Your task to perform on an android device: Go to ESPN.com Image 0: 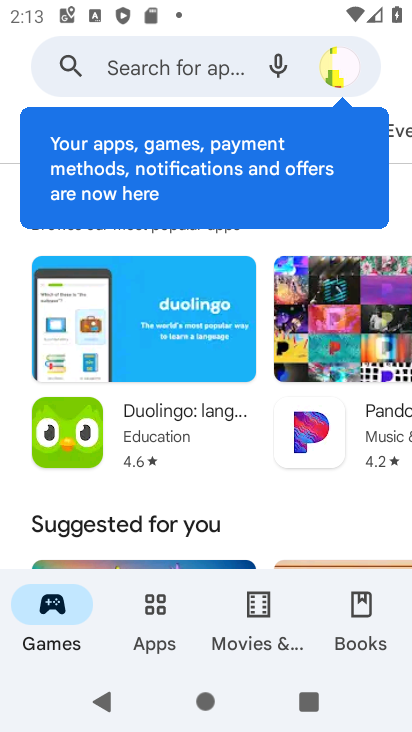
Step 0: press home button
Your task to perform on an android device: Go to ESPN.com Image 1: 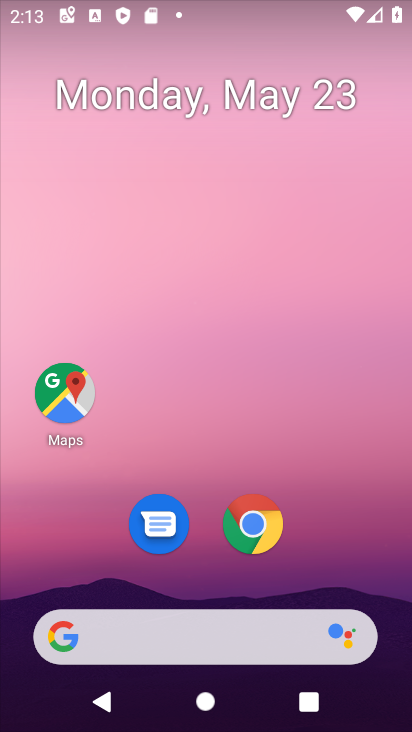
Step 1: click (196, 650)
Your task to perform on an android device: Go to ESPN.com Image 2: 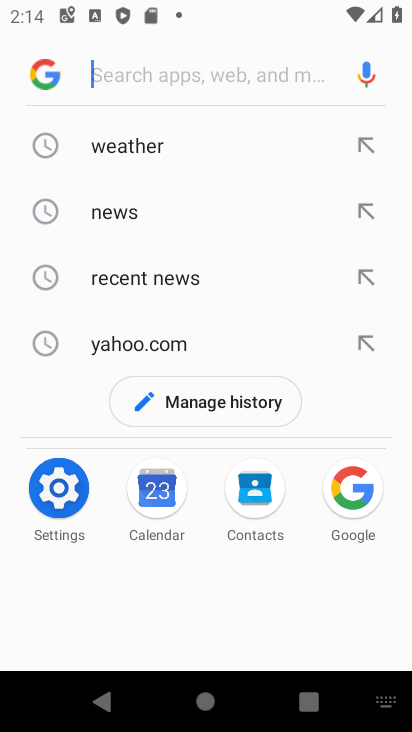
Step 2: type "espn.com"
Your task to perform on an android device: Go to ESPN.com Image 3: 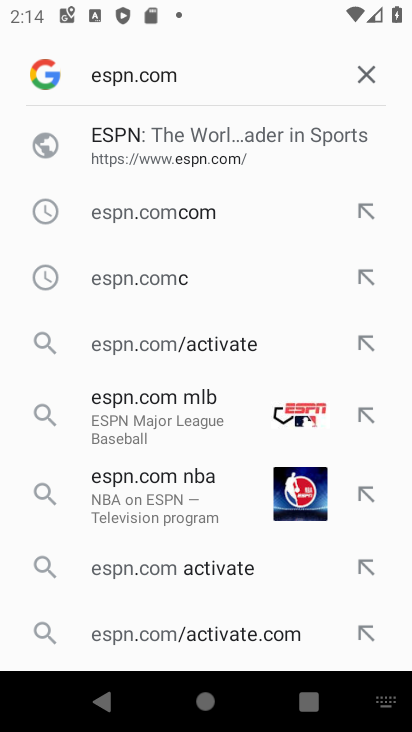
Step 3: click (131, 142)
Your task to perform on an android device: Go to ESPN.com Image 4: 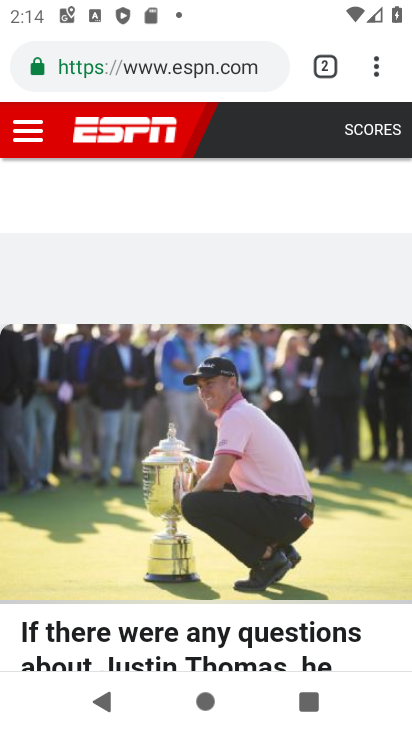
Step 4: task complete